Your task to perform on an android device: Open Amazon Image 0: 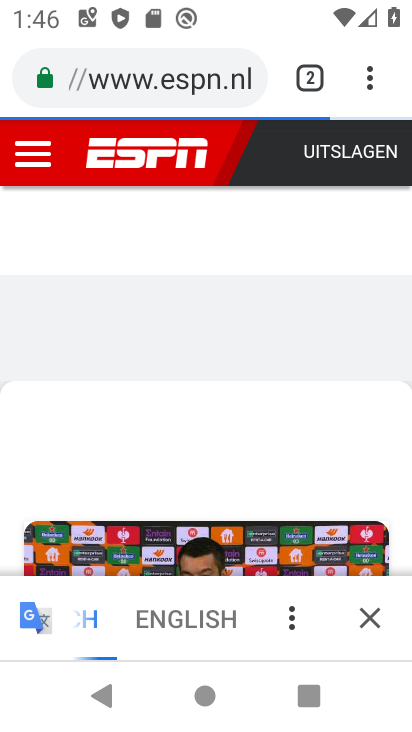
Step 0: press home button
Your task to perform on an android device: Open Amazon Image 1: 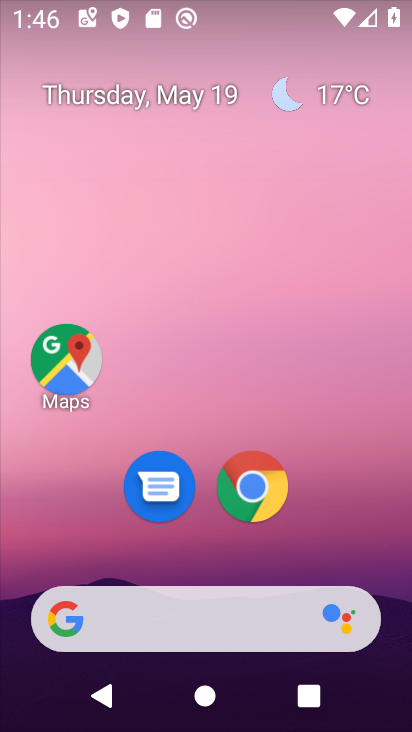
Step 1: drag from (324, 527) to (270, 73)
Your task to perform on an android device: Open Amazon Image 2: 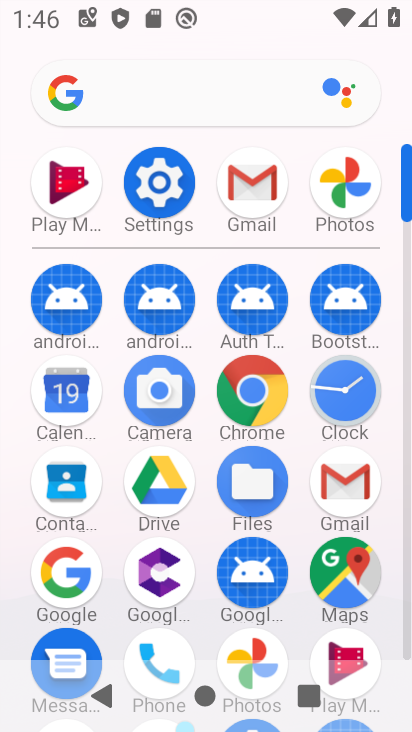
Step 2: click (254, 388)
Your task to perform on an android device: Open Amazon Image 3: 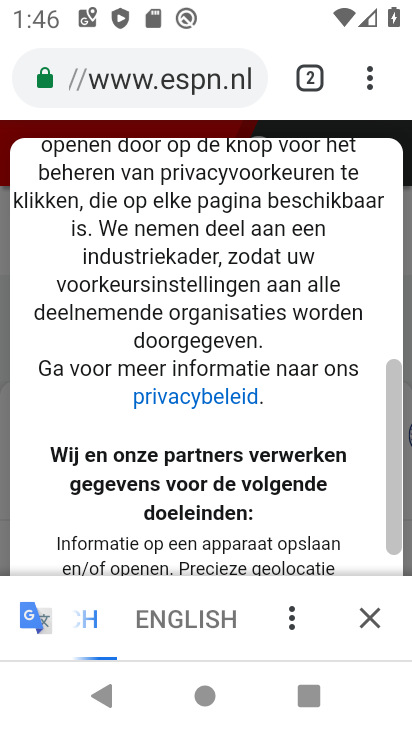
Step 3: click (301, 81)
Your task to perform on an android device: Open Amazon Image 4: 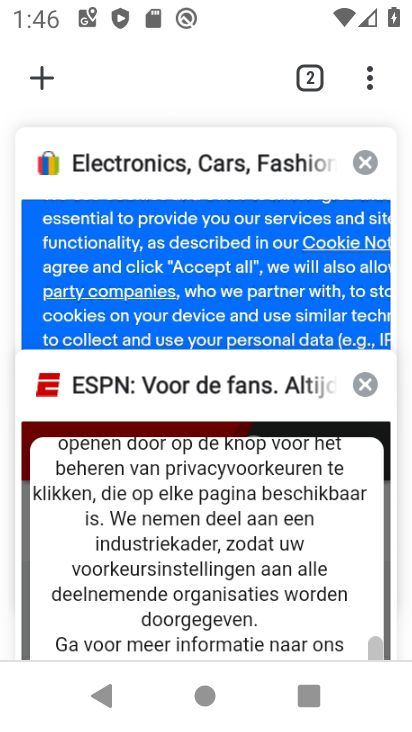
Step 4: click (31, 74)
Your task to perform on an android device: Open Amazon Image 5: 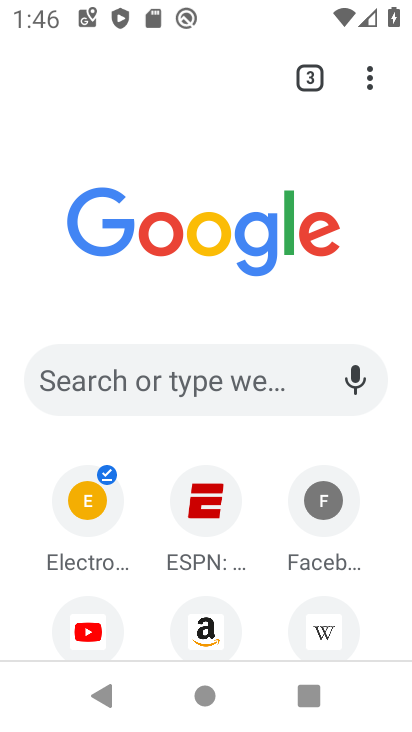
Step 5: click (205, 624)
Your task to perform on an android device: Open Amazon Image 6: 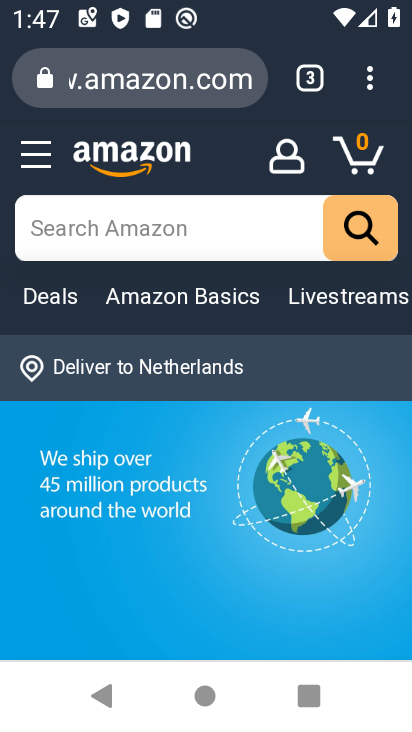
Step 6: task complete